Your task to perform on an android device: toggle airplane mode Image 0: 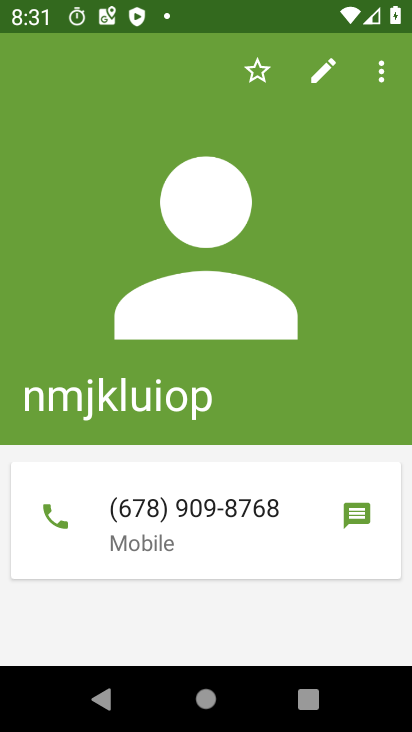
Step 0: press home button
Your task to perform on an android device: toggle airplane mode Image 1: 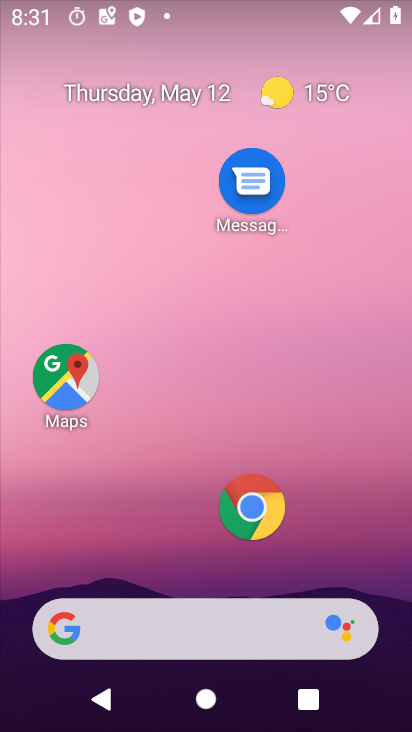
Step 1: drag from (290, 570) to (410, 3)
Your task to perform on an android device: toggle airplane mode Image 2: 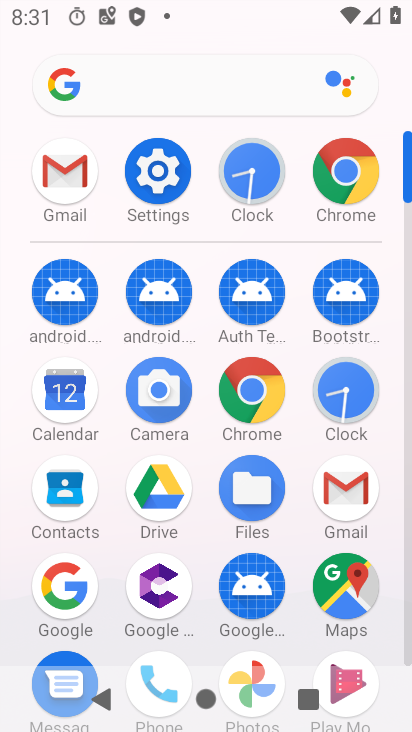
Step 2: click (167, 170)
Your task to perform on an android device: toggle airplane mode Image 3: 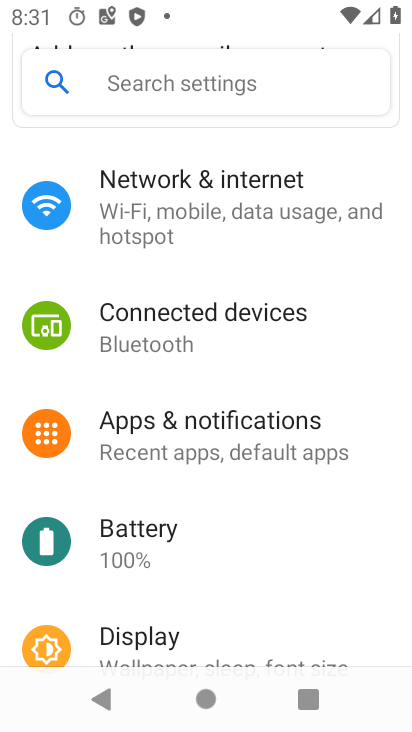
Step 3: click (215, 212)
Your task to perform on an android device: toggle airplane mode Image 4: 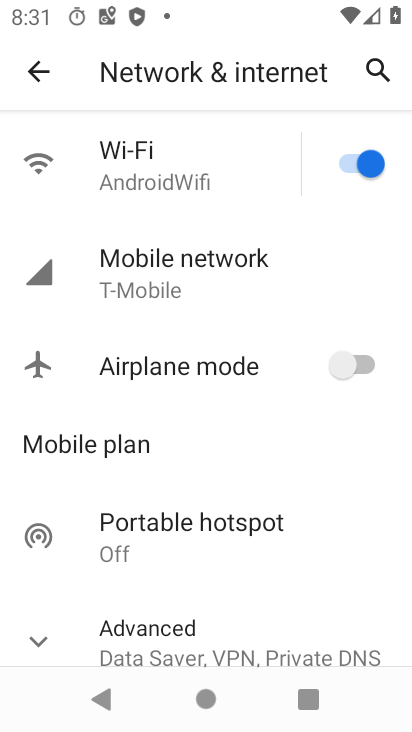
Step 4: click (366, 371)
Your task to perform on an android device: toggle airplane mode Image 5: 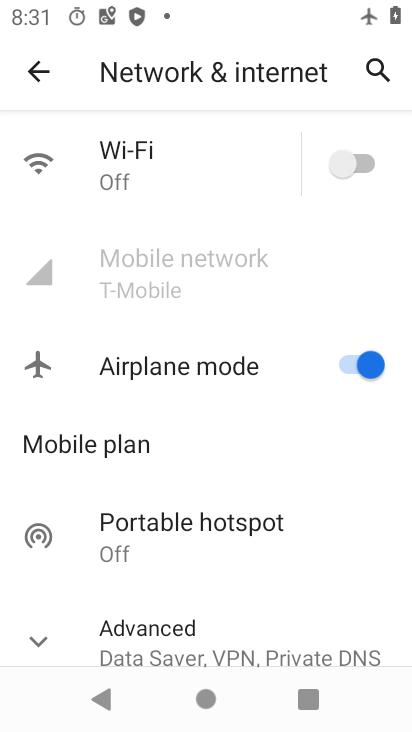
Step 5: task complete